Your task to perform on an android device: turn on location history Image 0: 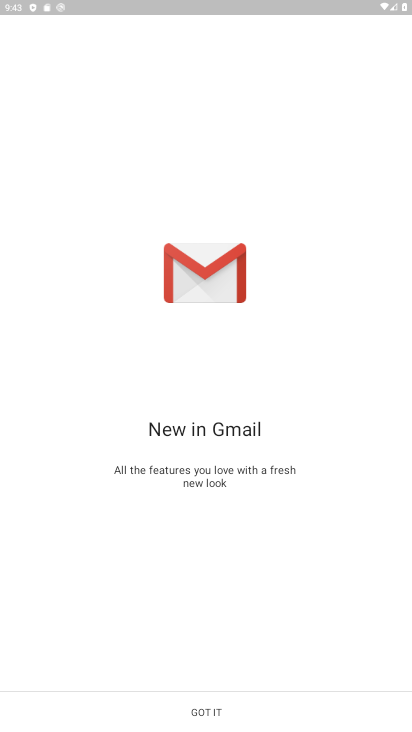
Step 0: press home button
Your task to perform on an android device: turn on location history Image 1: 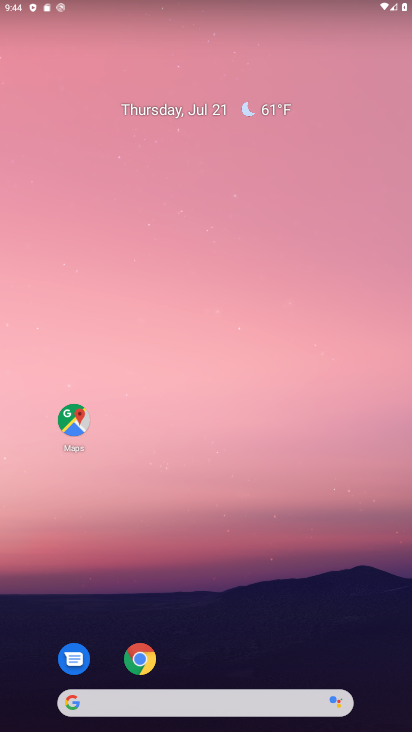
Step 1: drag from (7, 691) to (206, 137)
Your task to perform on an android device: turn on location history Image 2: 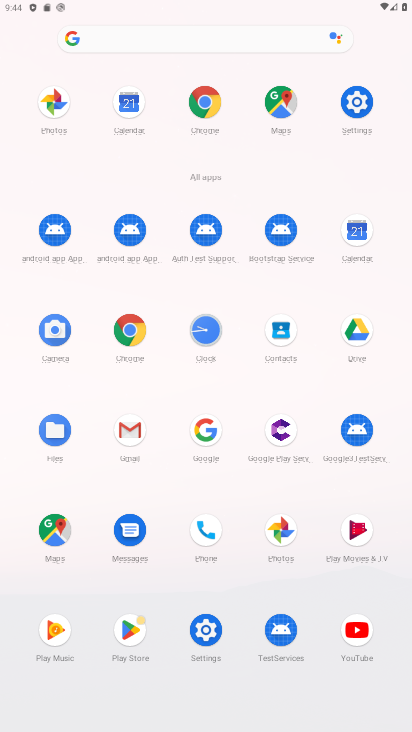
Step 2: click (209, 629)
Your task to perform on an android device: turn on location history Image 3: 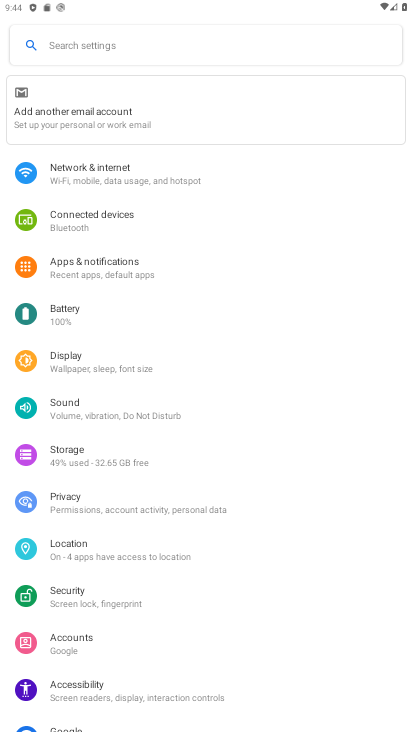
Step 3: click (74, 553)
Your task to perform on an android device: turn on location history Image 4: 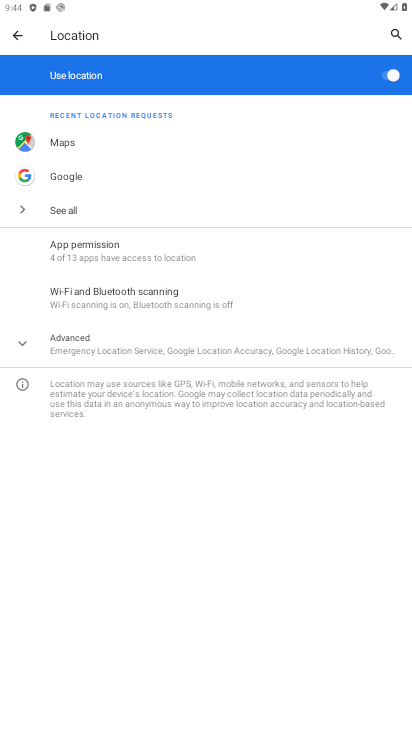
Step 4: click (57, 338)
Your task to perform on an android device: turn on location history Image 5: 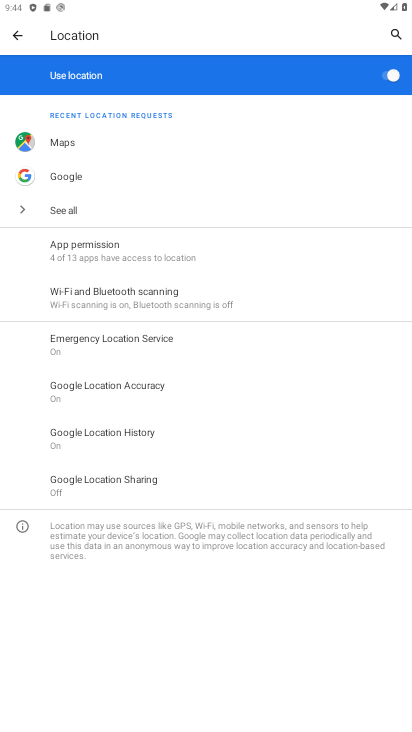
Step 5: task complete